Your task to perform on an android device: Open the phone app and click the voicemail tab. Image 0: 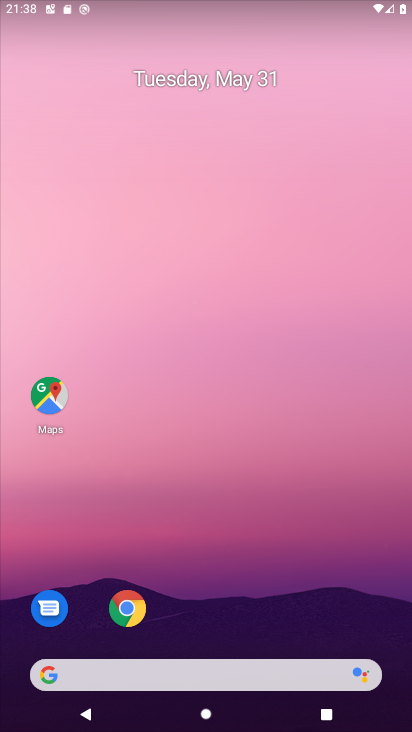
Step 0: drag from (242, 544) to (237, 11)
Your task to perform on an android device: Open the phone app and click the voicemail tab. Image 1: 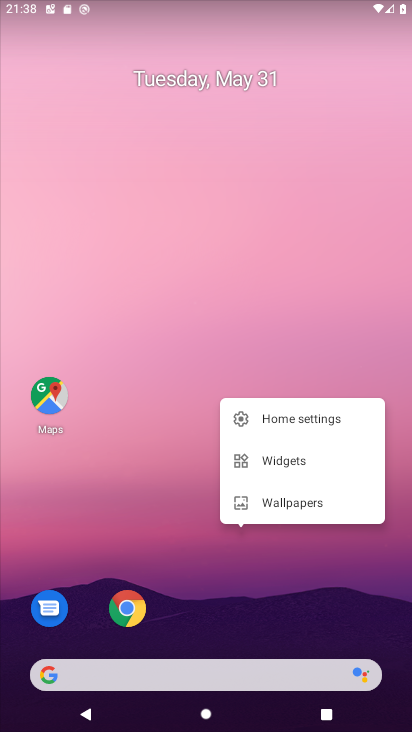
Step 1: click (158, 517)
Your task to perform on an android device: Open the phone app and click the voicemail tab. Image 2: 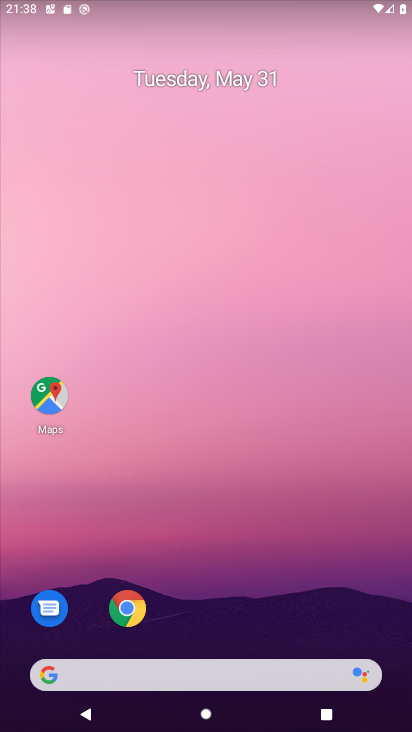
Step 2: drag from (242, 596) to (219, 5)
Your task to perform on an android device: Open the phone app and click the voicemail tab. Image 3: 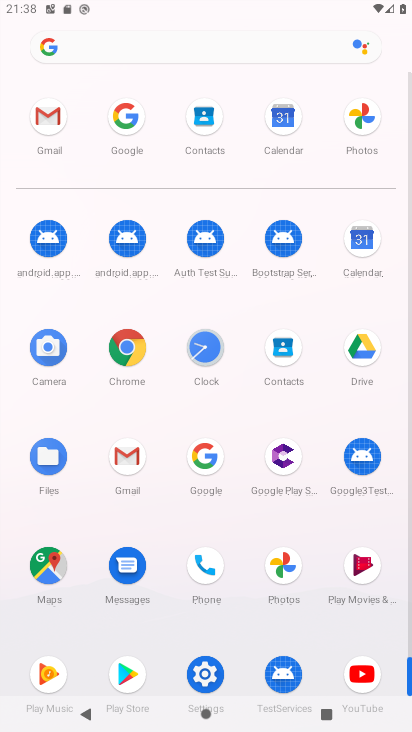
Step 3: click (200, 568)
Your task to perform on an android device: Open the phone app and click the voicemail tab. Image 4: 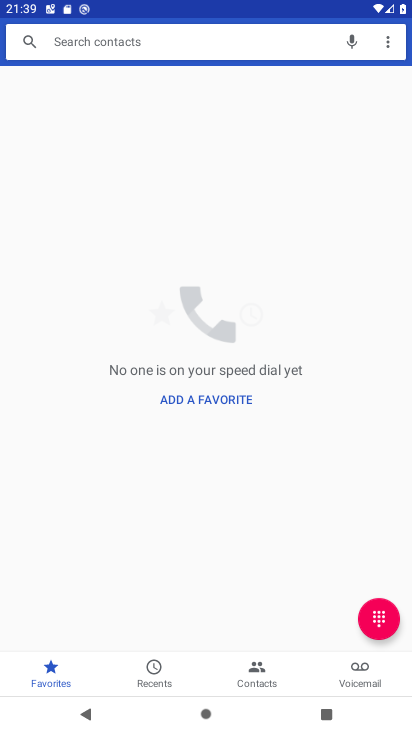
Step 4: click (367, 672)
Your task to perform on an android device: Open the phone app and click the voicemail tab. Image 5: 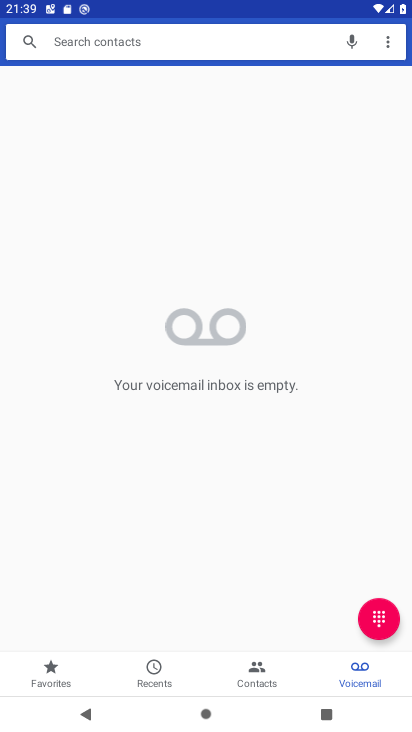
Step 5: task complete